Your task to perform on an android device: turn notification dots on Image 0: 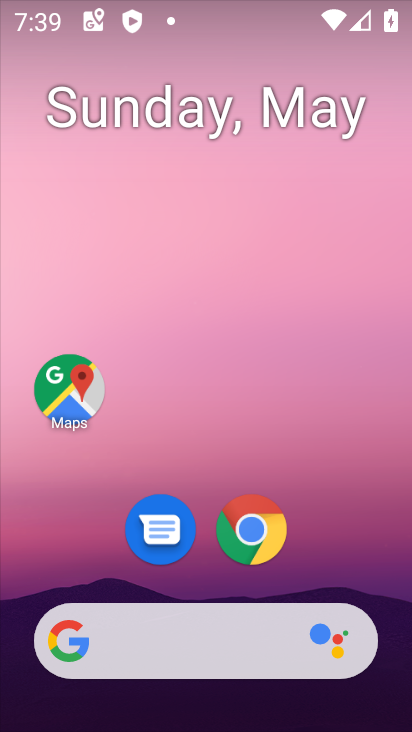
Step 0: drag from (362, 602) to (348, 4)
Your task to perform on an android device: turn notification dots on Image 1: 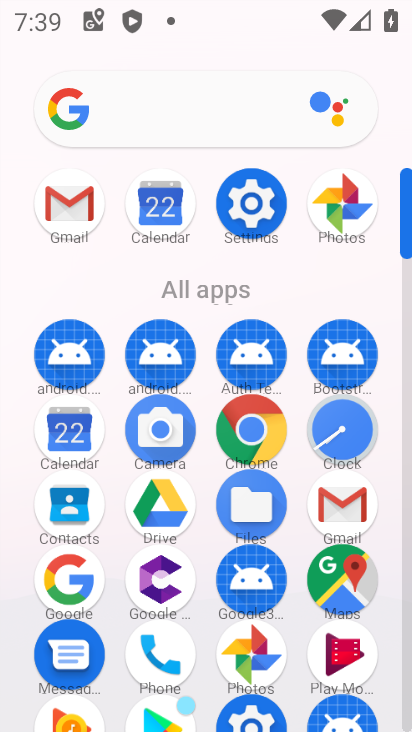
Step 1: click (250, 197)
Your task to perform on an android device: turn notification dots on Image 2: 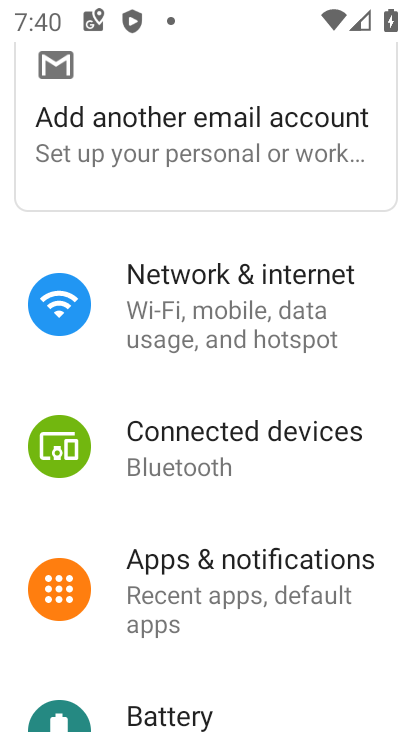
Step 2: click (247, 568)
Your task to perform on an android device: turn notification dots on Image 3: 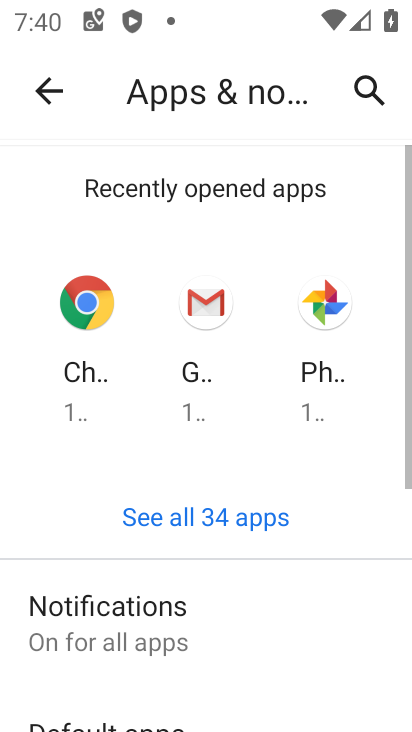
Step 3: drag from (201, 598) to (231, 117)
Your task to perform on an android device: turn notification dots on Image 4: 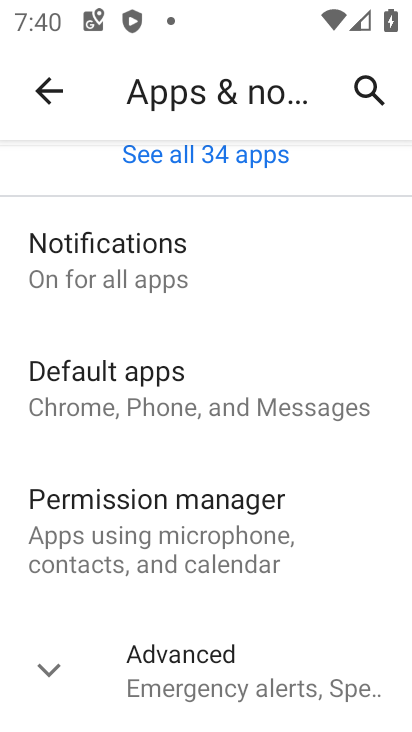
Step 4: click (123, 241)
Your task to perform on an android device: turn notification dots on Image 5: 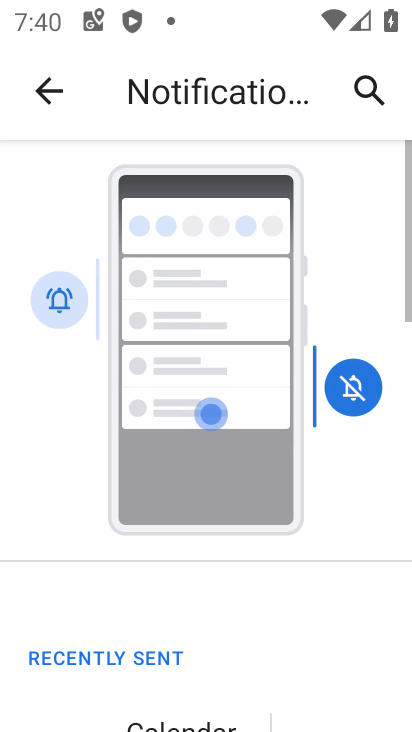
Step 5: drag from (192, 524) to (210, 50)
Your task to perform on an android device: turn notification dots on Image 6: 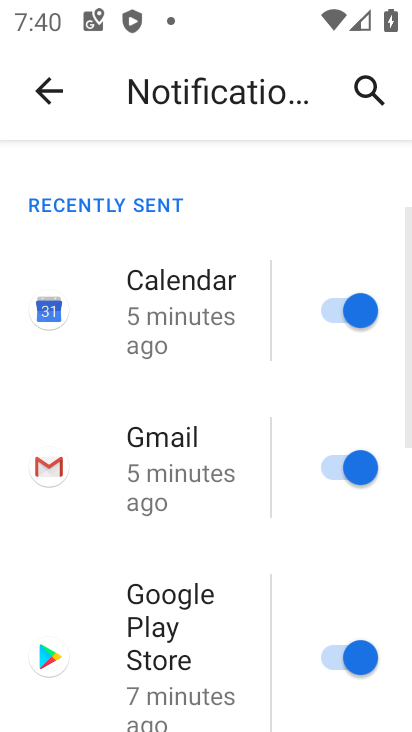
Step 6: drag from (210, 549) to (214, 85)
Your task to perform on an android device: turn notification dots on Image 7: 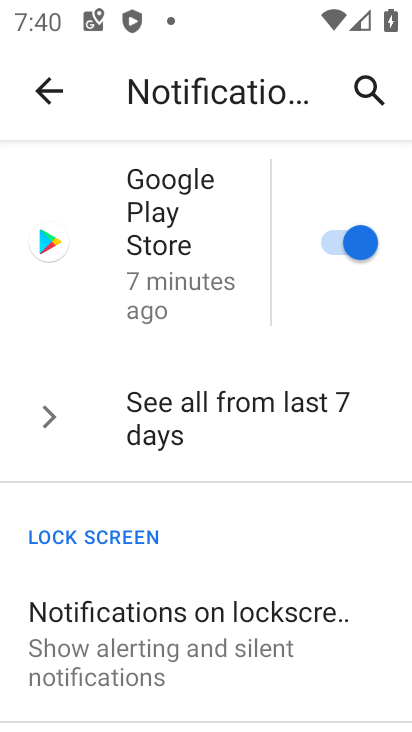
Step 7: drag from (215, 536) to (195, 132)
Your task to perform on an android device: turn notification dots on Image 8: 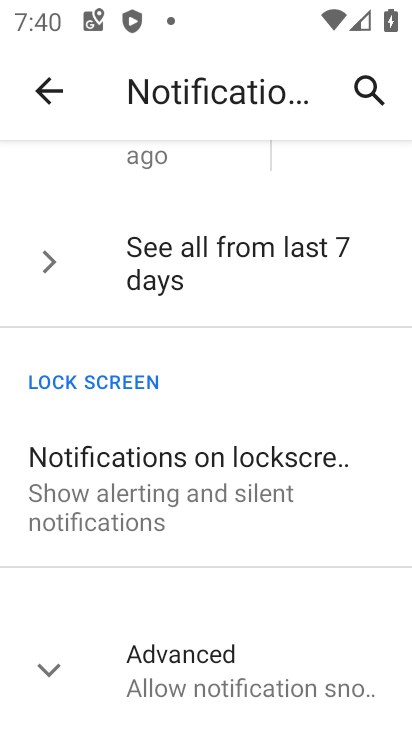
Step 8: click (49, 685)
Your task to perform on an android device: turn notification dots on Image 9: 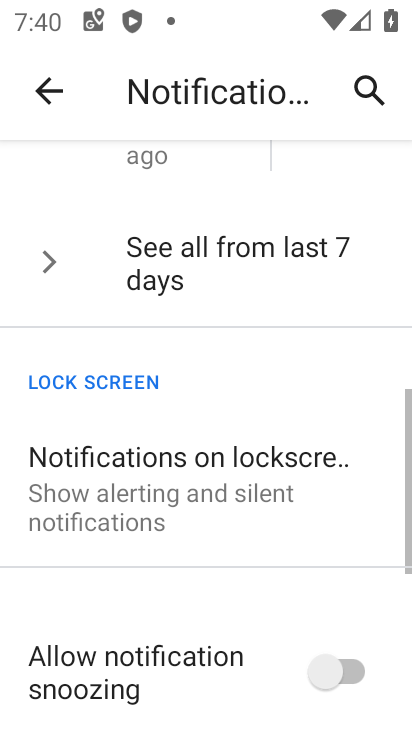
Step 9: task complete